Your task to perform on an android device: Go to privacy settings Image 0: 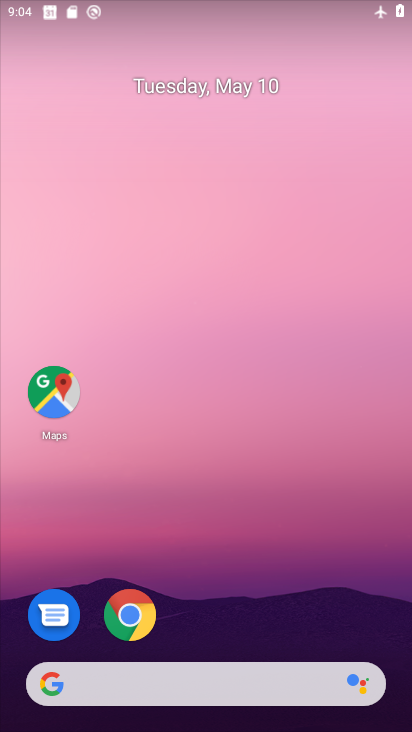
Step 0: click (277, 349)
Your task to perform on an android device: Go to privacy settings Image 1: 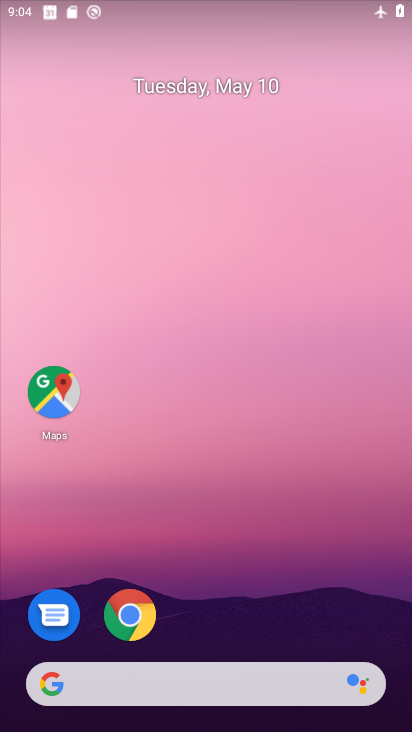
Step 1: drag from (197, 584) to (232, 118)
Your task to perform on an android device: Go to privacy settings Image 2: 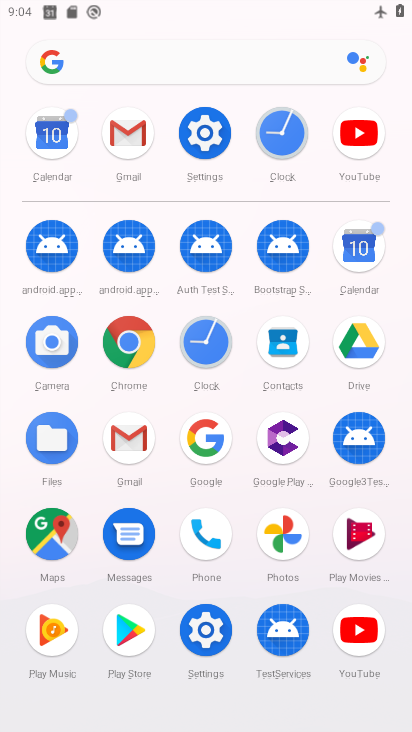
Step 2: click (220, 142)
Your task to perform on an android device: Go to privacy settings Image 3: 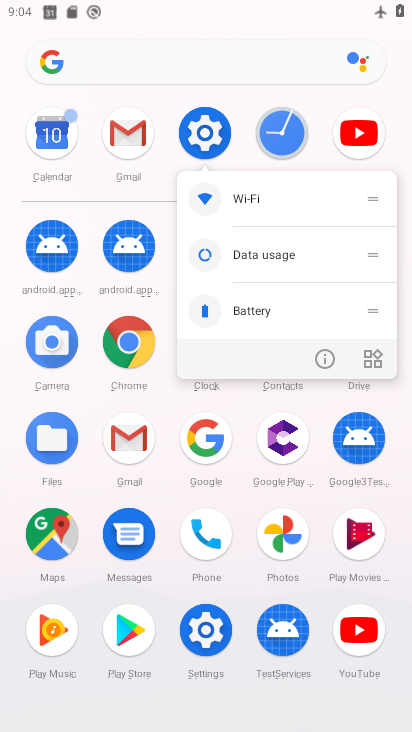
Step 3: click (321, 363)
Your task to perform on an android device: Go to privacy settings Image 4: 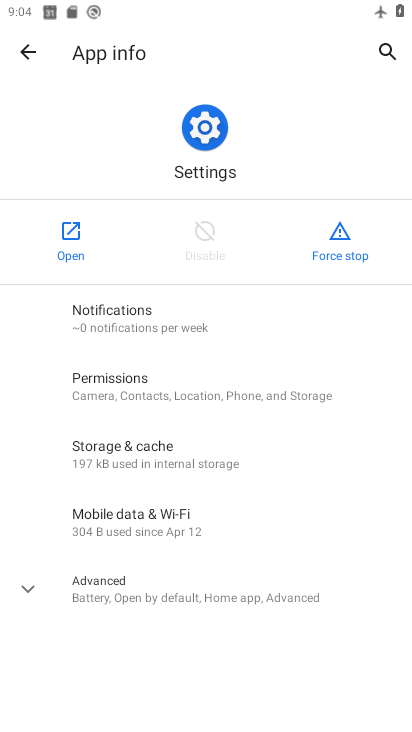
Step 4: click (84, 227)
Your task to perform on an android device: Go to privacy settings Image 5: 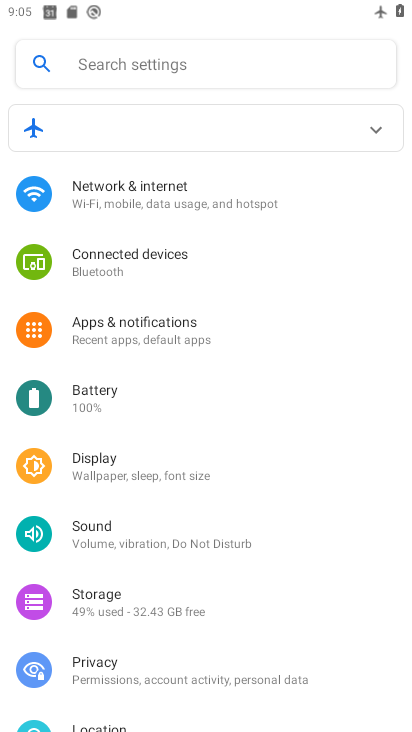
Step 5: drag from (240, 695) to (267, 136)
Your task to perform on an android device: Go to privacy settings Image 6: 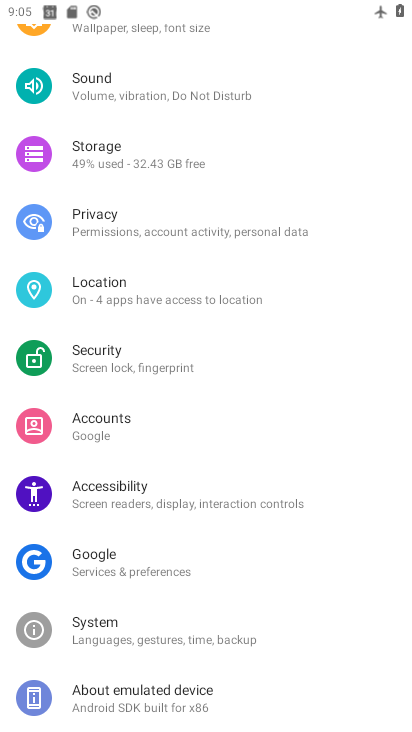
Step 6: drag from (168, 618) to (184, 246)
Your task to perform on an android device: Go to privacy settings Image 7: 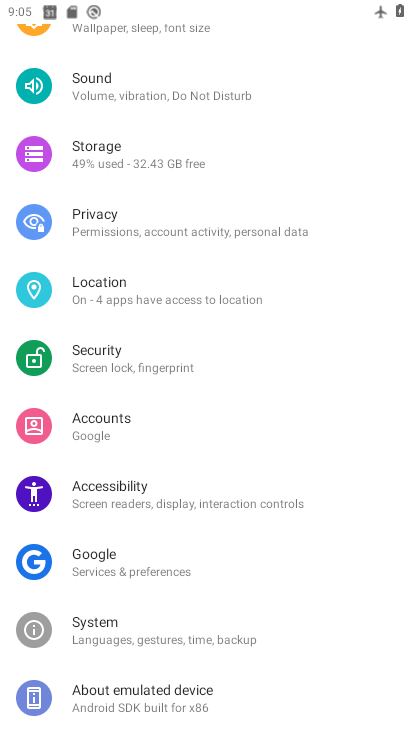
Step 7: click (118, 235)
Your task to perform on an android device: Go to privacy settings Image 8: 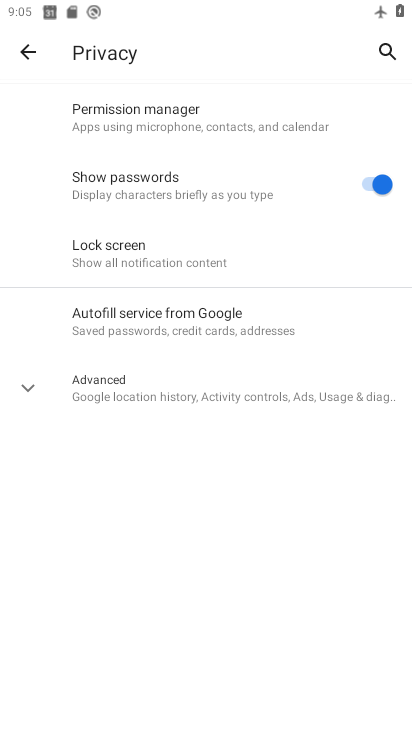
Step 8: task complete